Your task to perform on an android device: check storage Image 0: 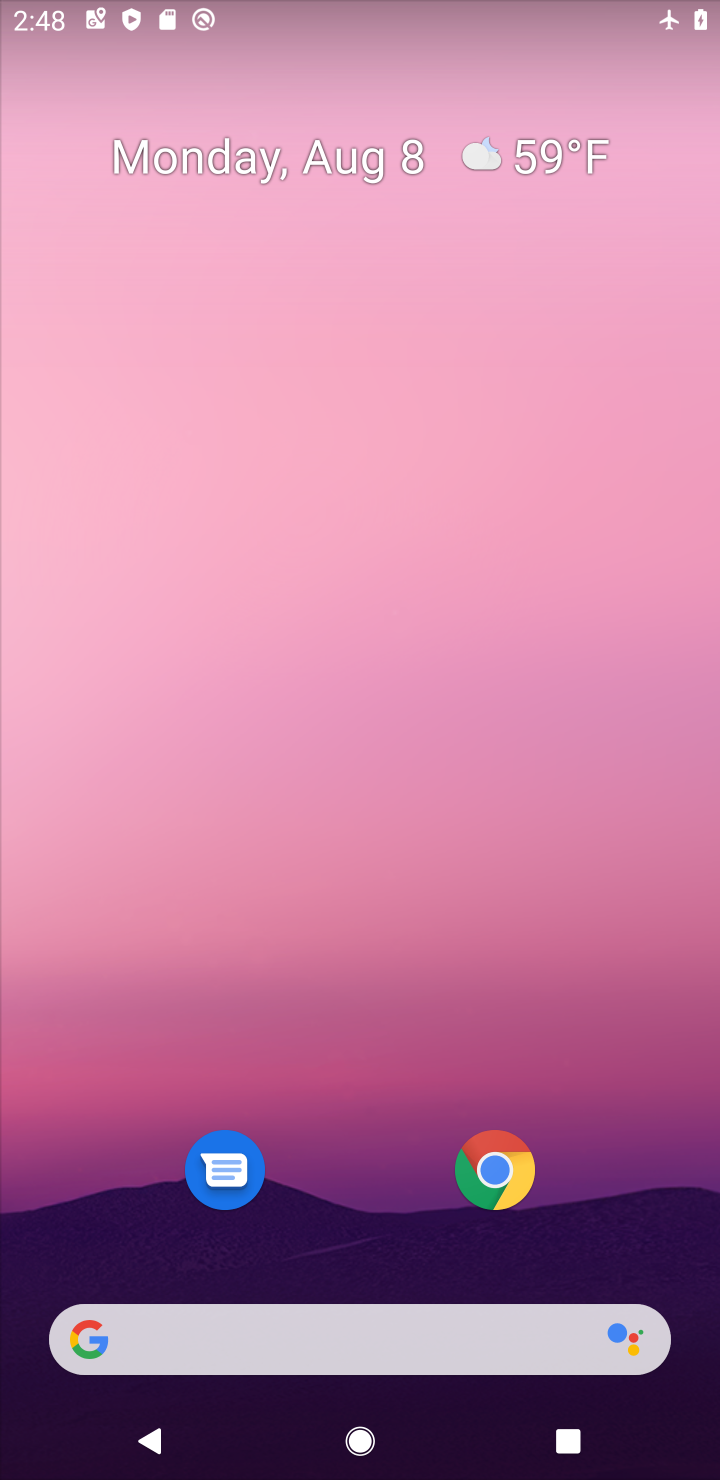
Step 0: drag from (371, 1069) to (385, 220)
Your task to perform on an android device: check storage Image 1: 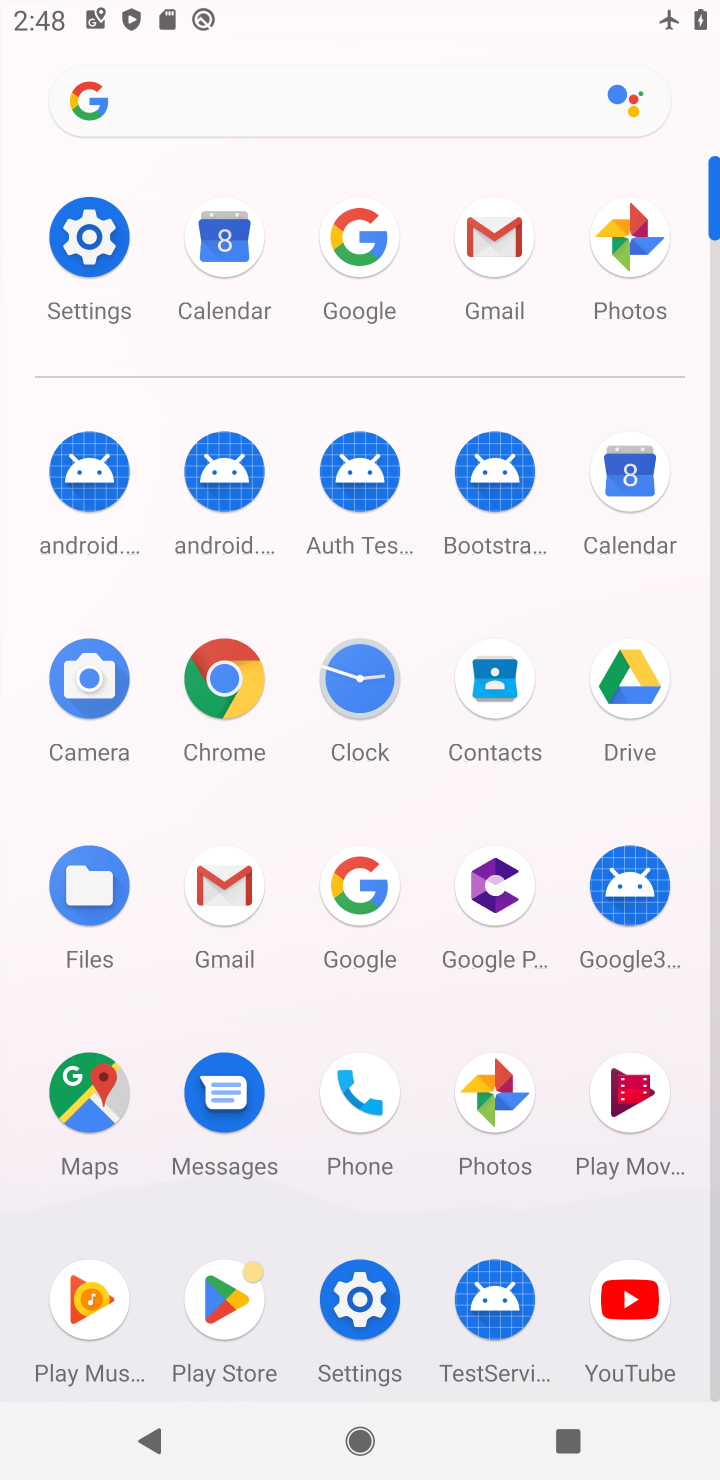
Step 1: click (109, 251)
Your task to perform on an android device: check storage Image 2: 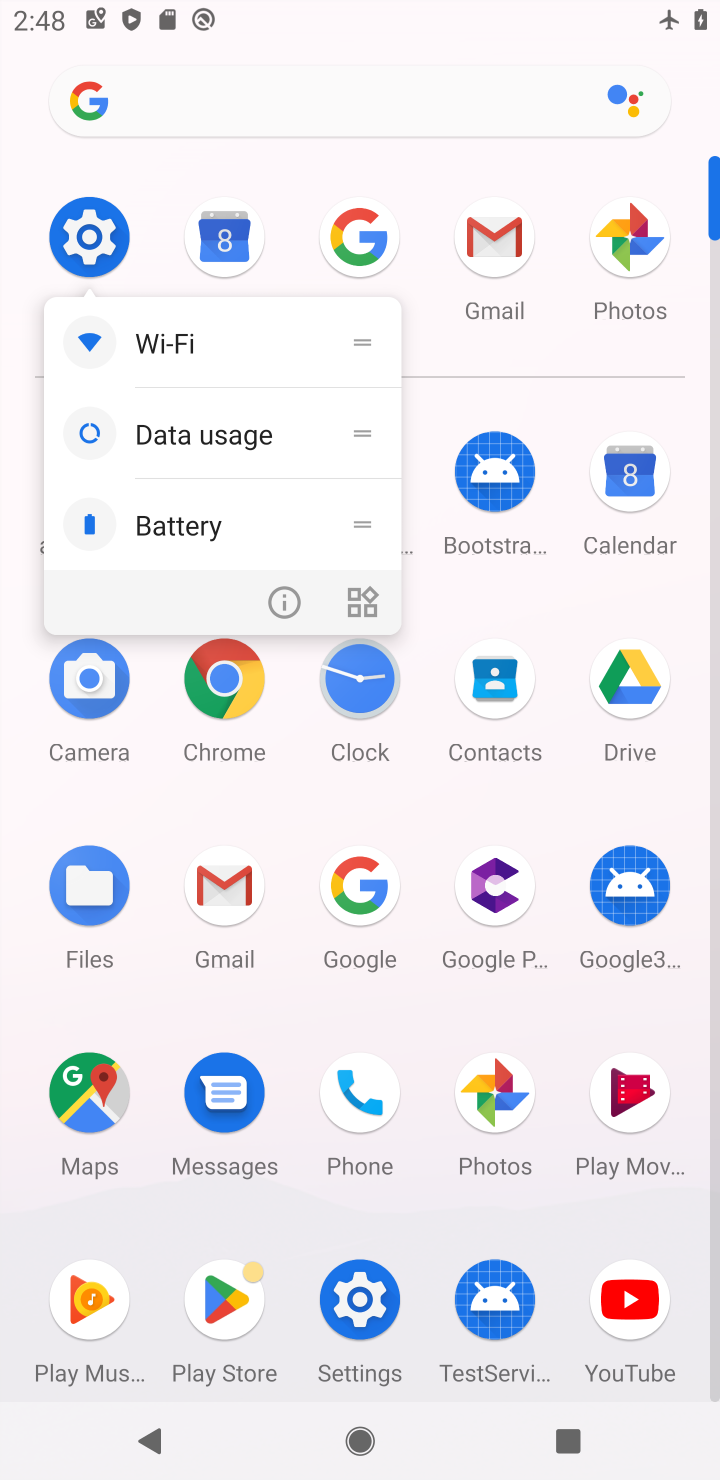
Step 2: click (109, 251)
Your task to perform on an android device: check storage Image 3: 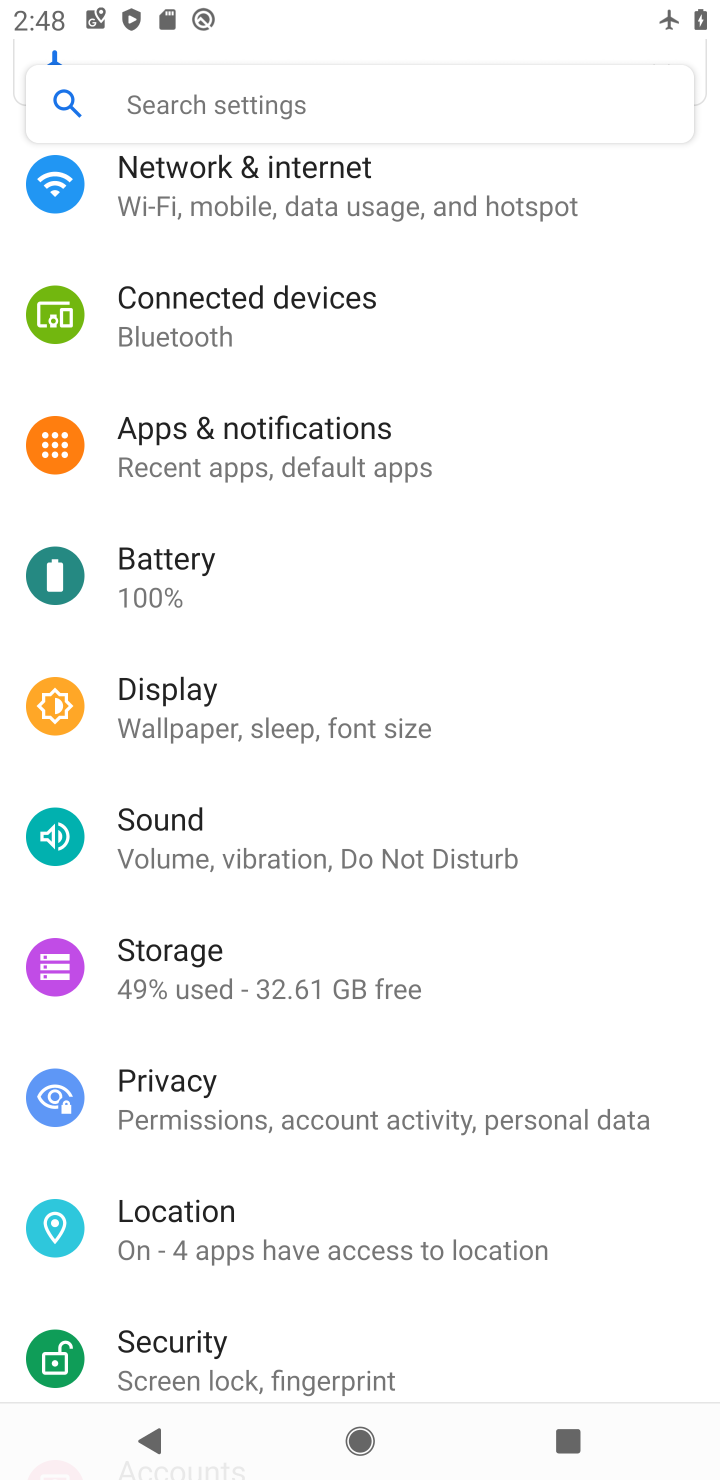
Step 3: click (231, 960)
Your task to perform on an android device: check storage Image 4: 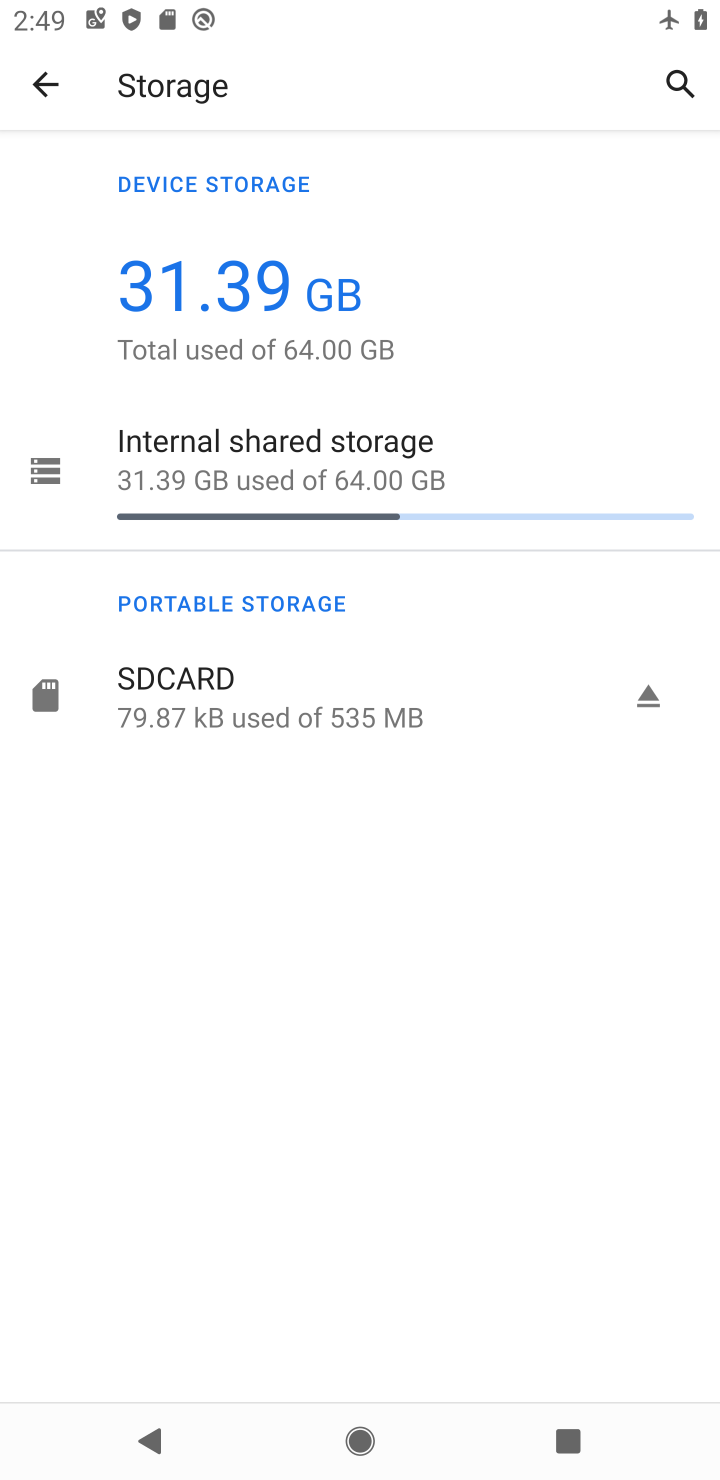
Step 4: click (268, 491)
Your task to perform on an android device: check storage Image 5: 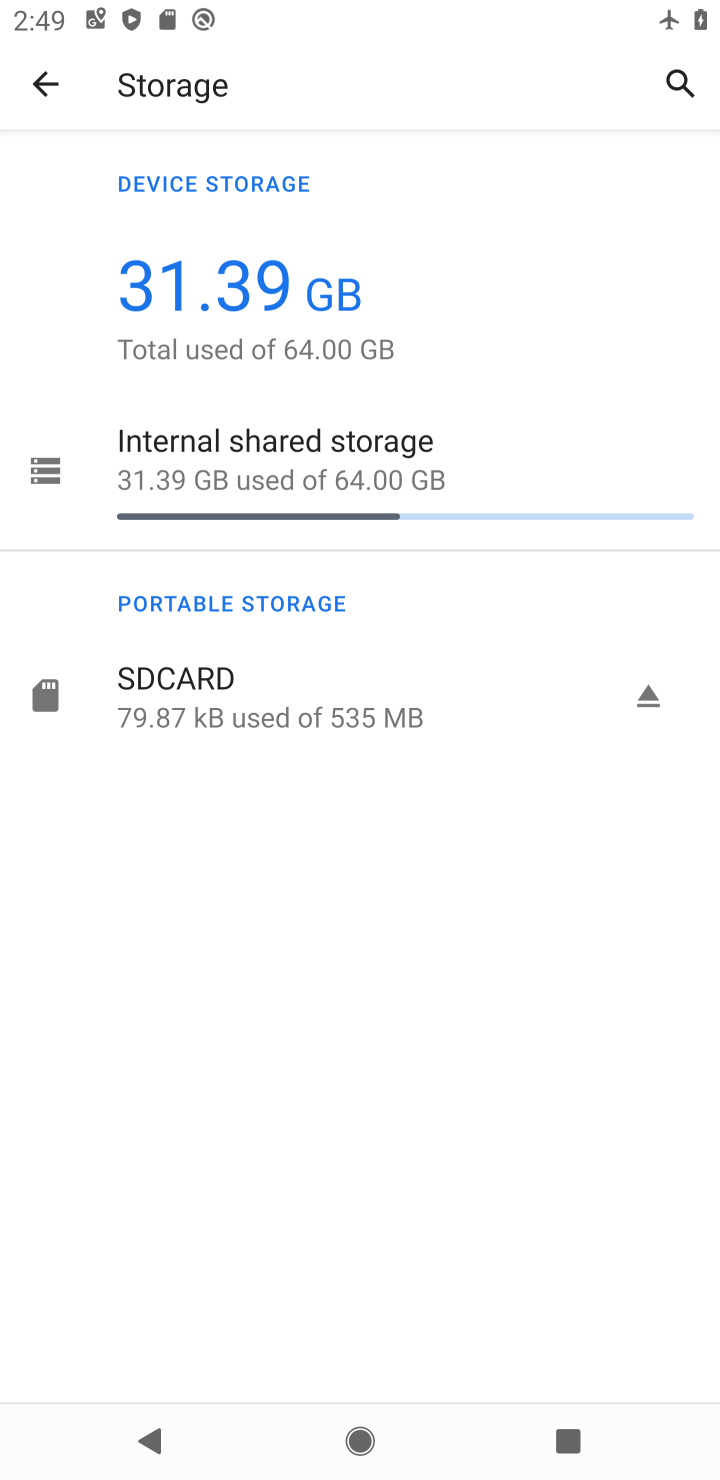
Step 5: task complete